Your task to perform on an android device: open app "Spotify" Image 0: 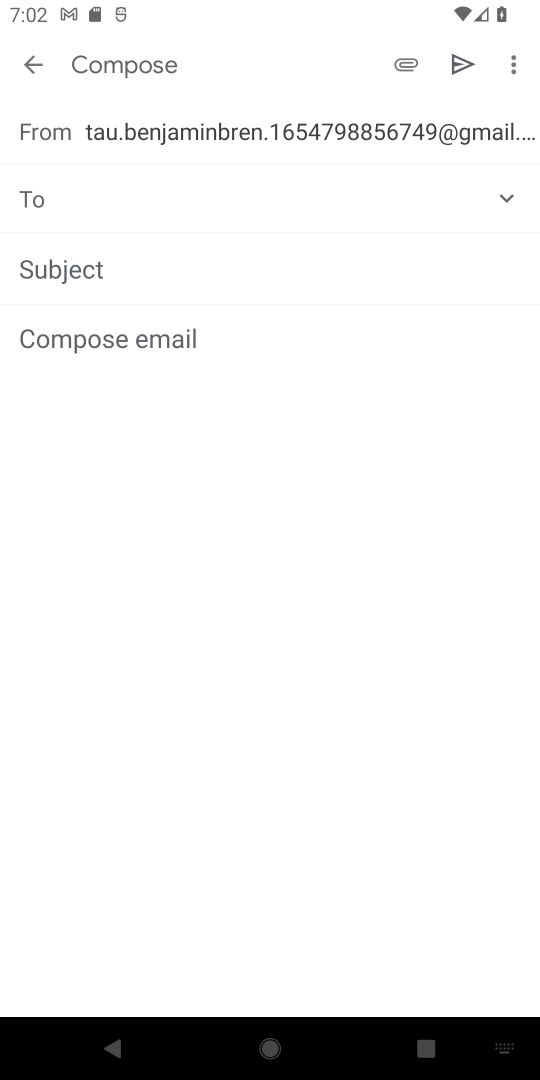
Step 0: press home button
Your task to perform on an android device: open app "Spotify" Image 1: 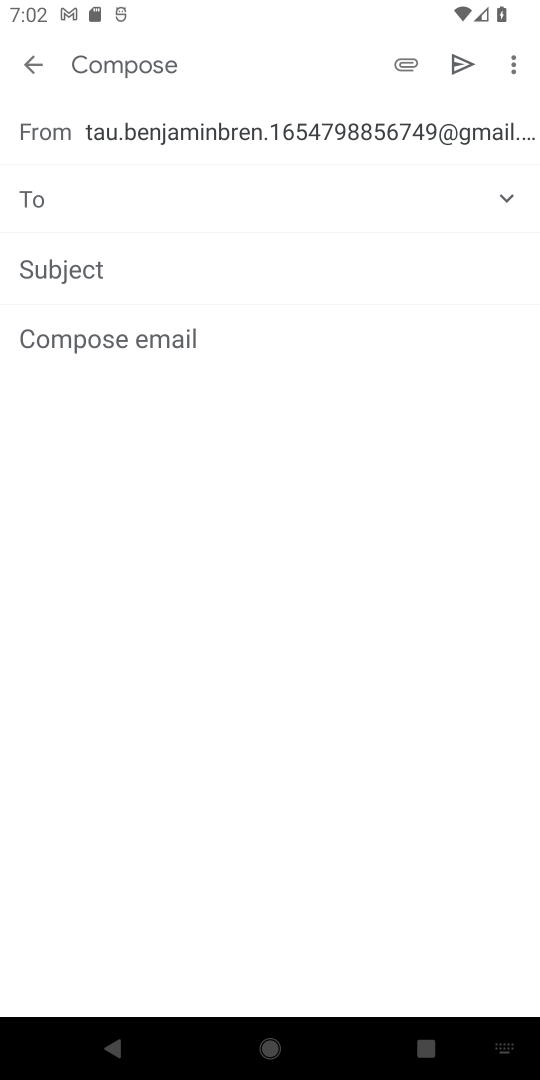
Step 1: press home button
Your task to perform on an android device: open app "Spotify" Image 2: 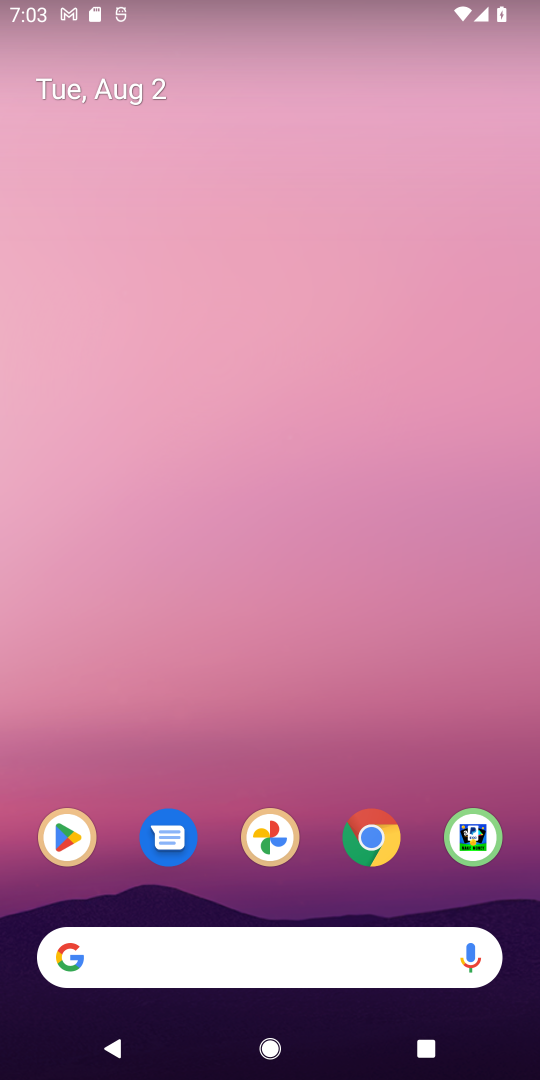
Step 2: drag from (206, 894) to (242, 62)
Your task to perform on an android device: open app "Spotify" Image 3: 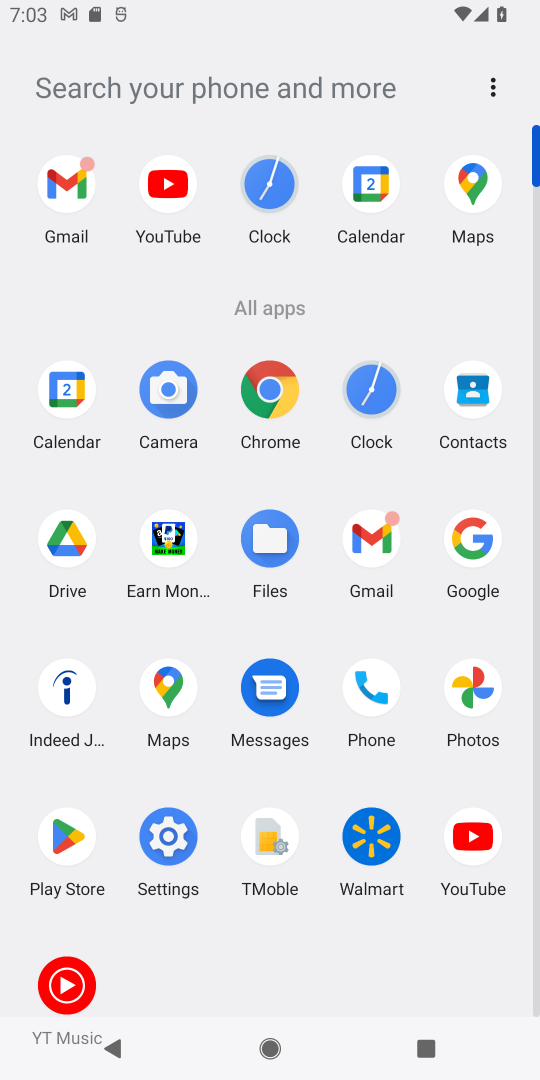
Step 3: drag from (321, 935) to (322, 237)
Your task to perform on an android device: open app "Spotify" Image 4: 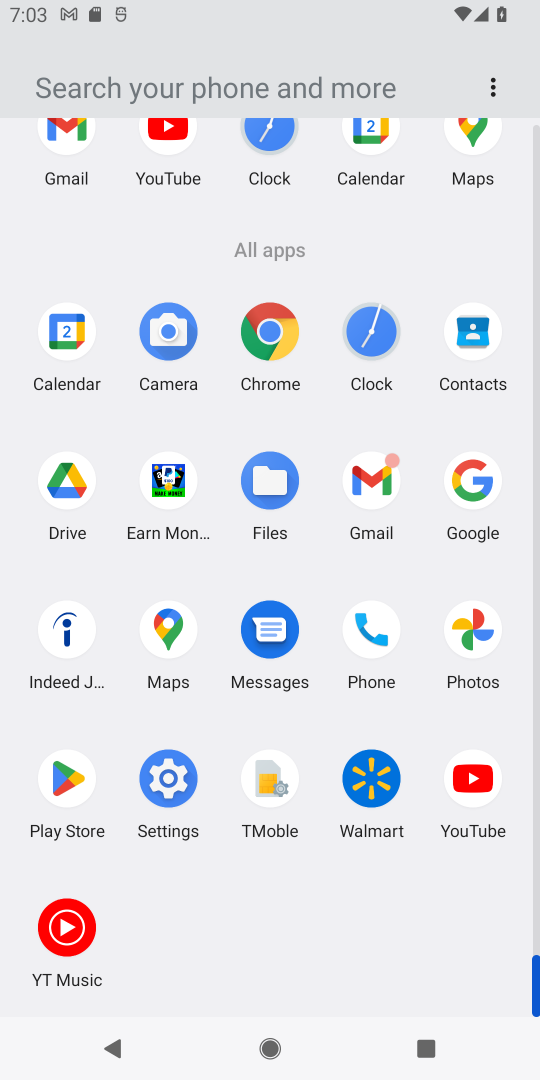
Step 4: drag from (335, 217) to (343, 841)
Your task to perform on an android device: open app "Spotify" Image 5: 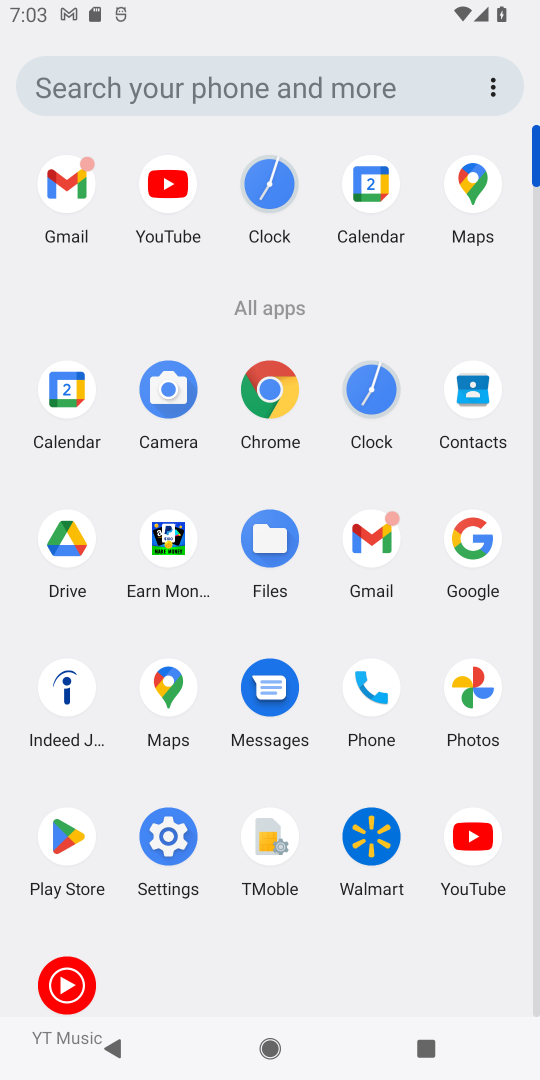
Step 5: click (63, 843)
Your task to perform on an android device: open app "Spotify" Image 6: 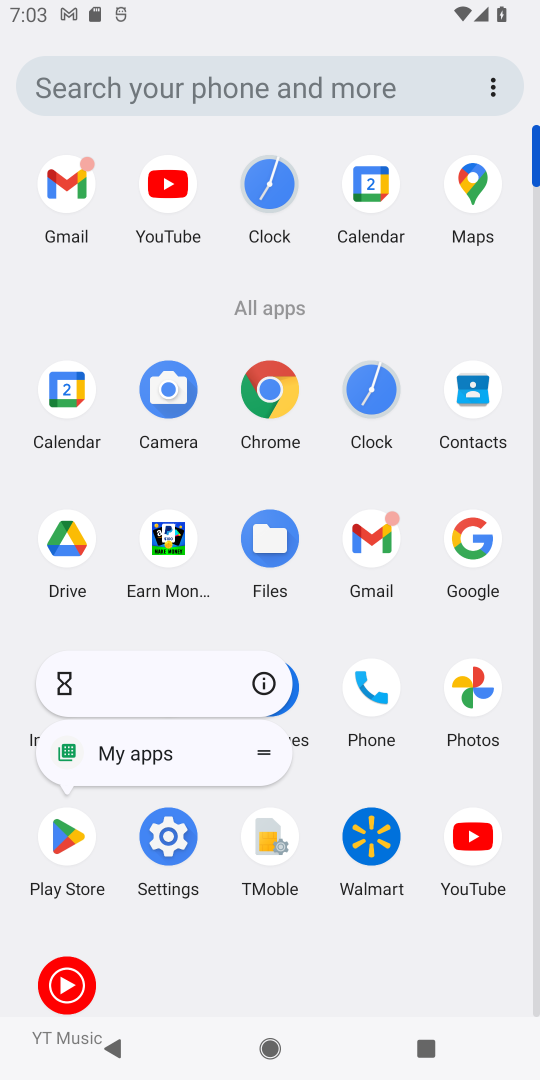
Step 6: click (250, 664)
Your task to perform on an android device: open app "Spotify" Image 7: 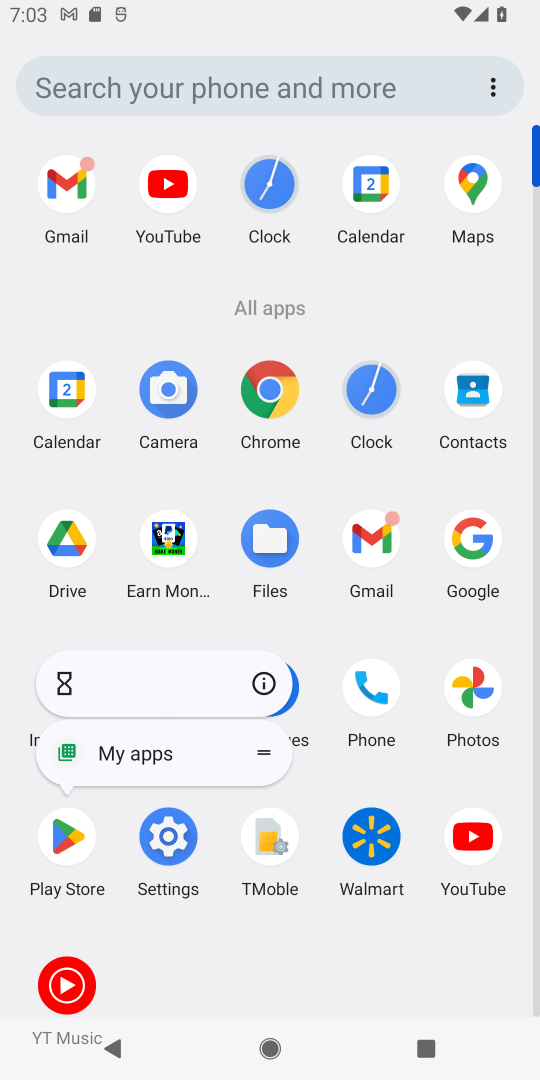
Step 7: click (267, 690)
Your task to perform on an android device: open app "Spotify" Image 8: 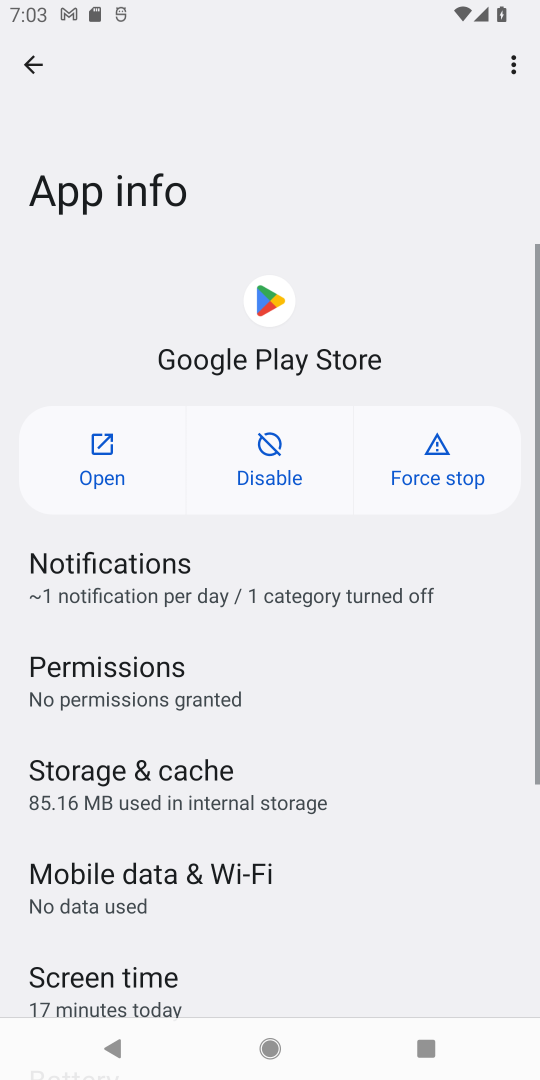
Step 8: click (69, 443)
Your task to perform on an android device: open app "Spotify" Image 9: 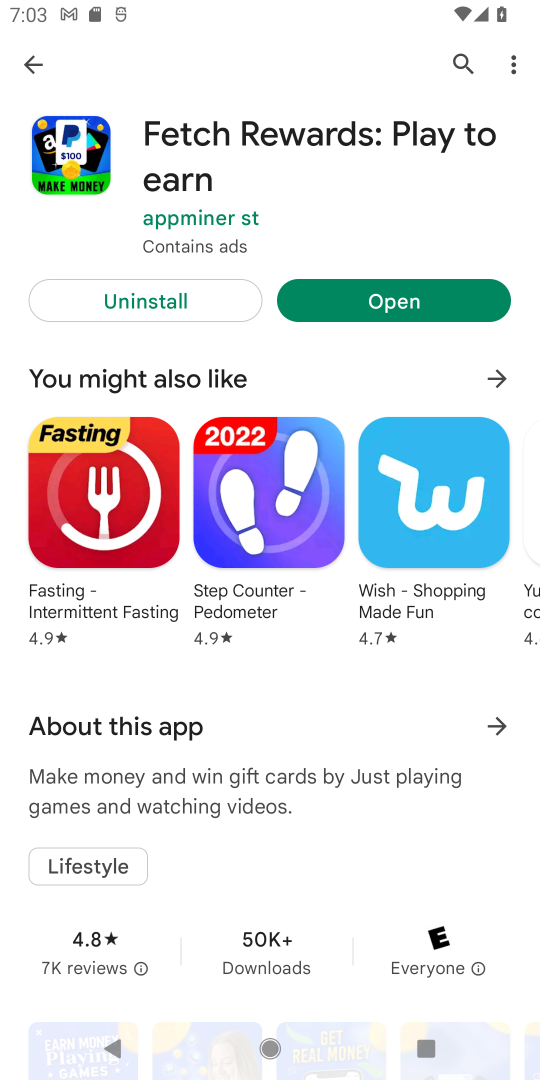
Step 9: drag from (291, 182) to (411, 979)
Your task to perform on an android device: open app "Spotify" Image 10: 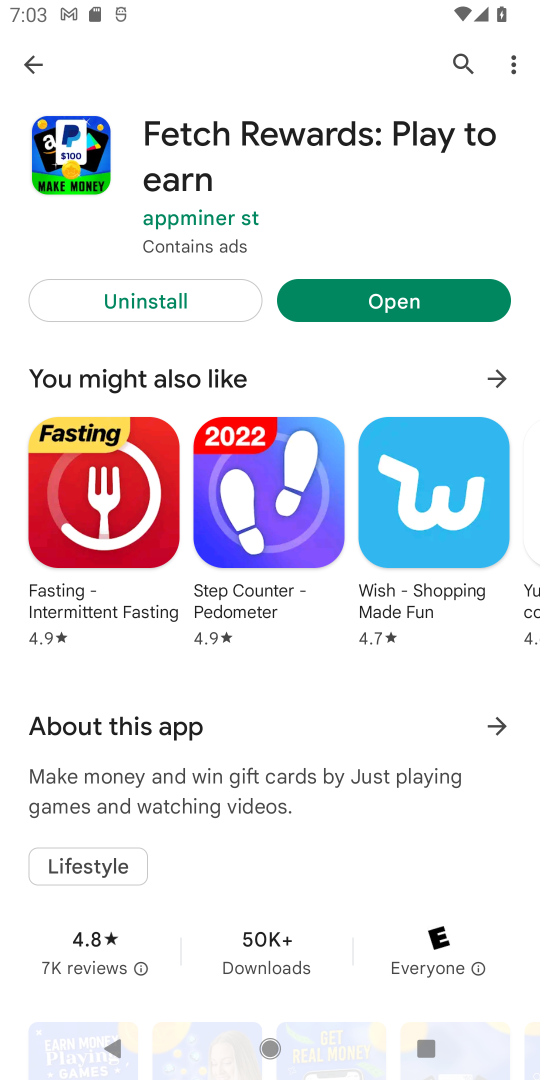
Step 10: drag from (283, 214) to (331, 925)
Your task to perform on an android device: open app "Spotify" Image 11: 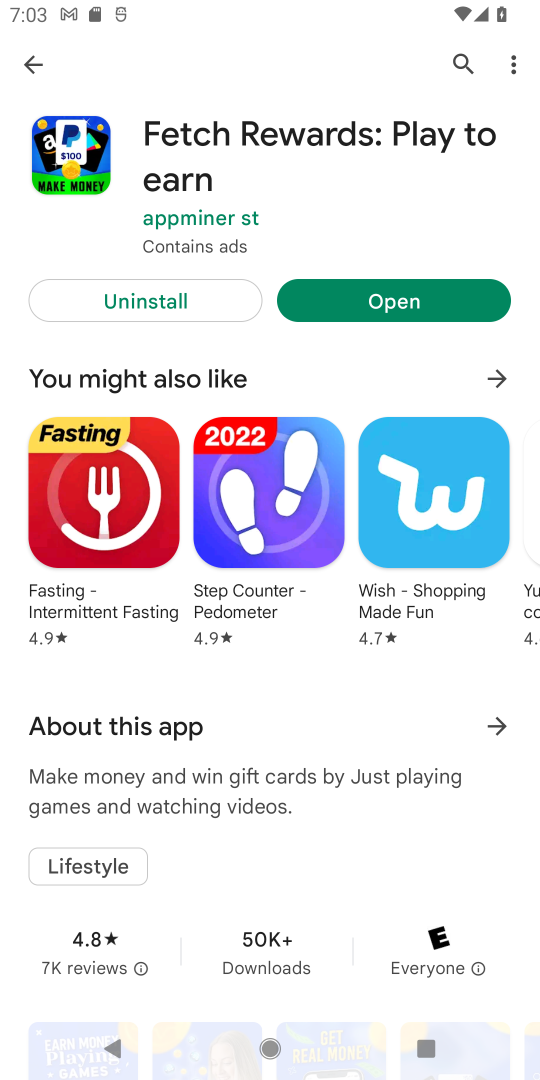
Step 11: click (448, 305)
Your task to perform on an android device: open app "Spotify" Image 12: 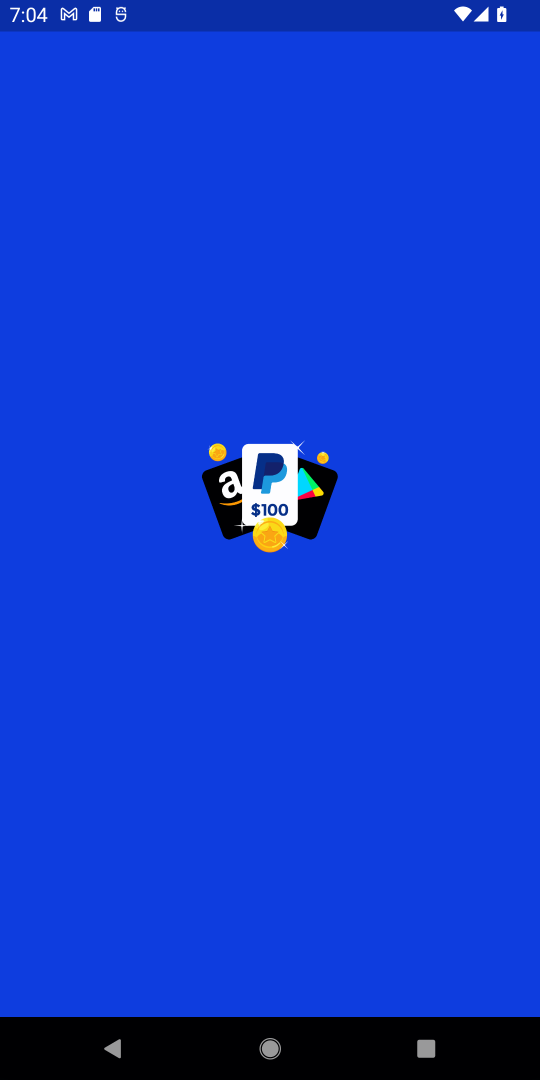
Step 12: task complete